Your task to perform on an android device: Go to network settings Image 0: 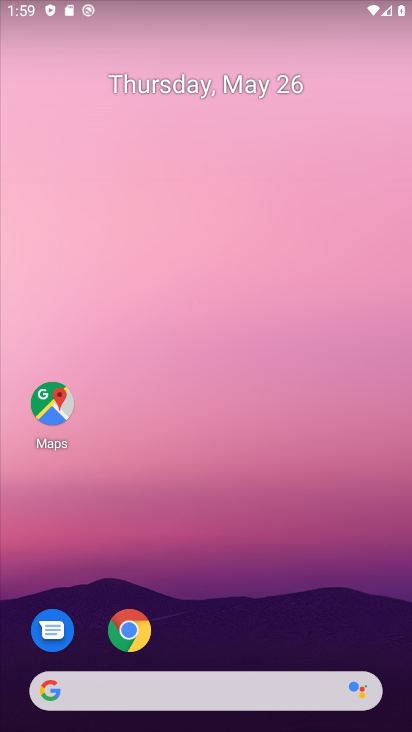
Step 0: drag from (272, 613) to (259, 106)
Your task to perform on an android device: Go to network settings Image 1: 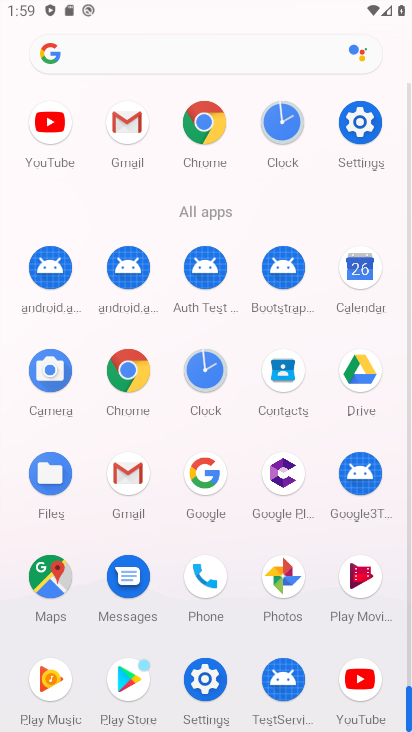
Step 1: click (354, 111)
Your task to perform on an android device: Go to network settings Image 2: 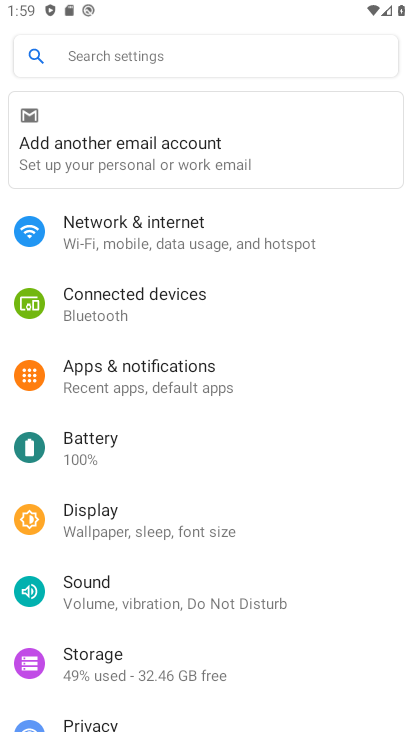
Step 2: click (185, 233)
Your task to perform on an android device: Go to network settings Image 3: 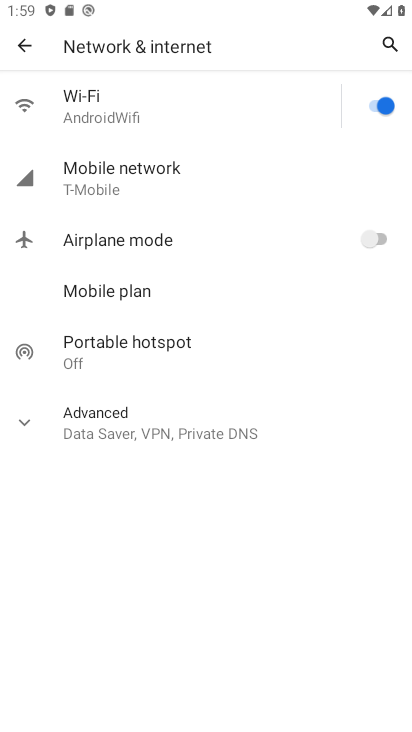
Step 3: task complete